Your task to perform on an android device: open app "Indeed Job Search" (install if not already installed) Image 0: 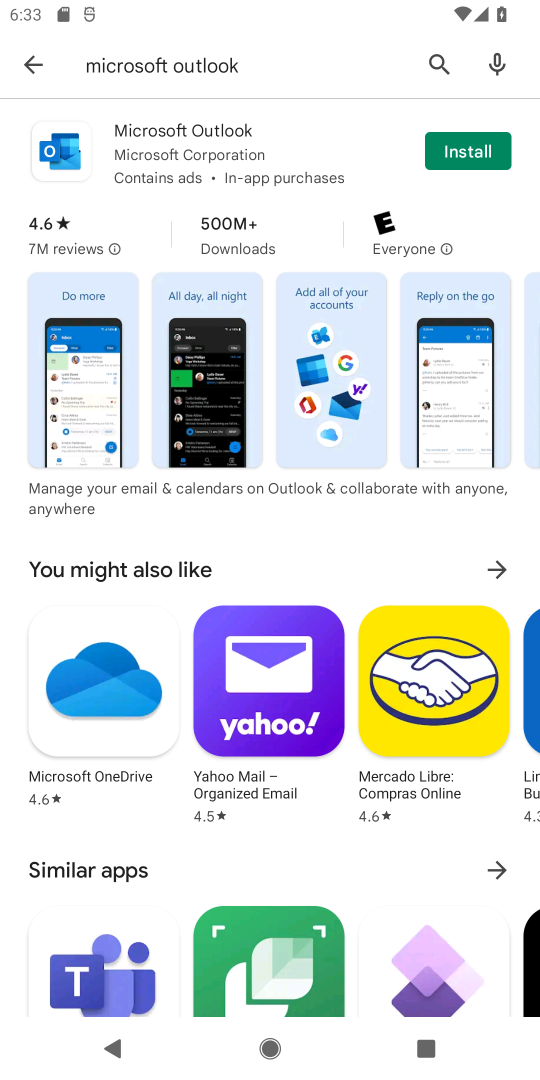
Step 0: click (450, 48)
Your task to perform on an android device: open app "Indeed Job Search" (install if not already installed) Image 1: 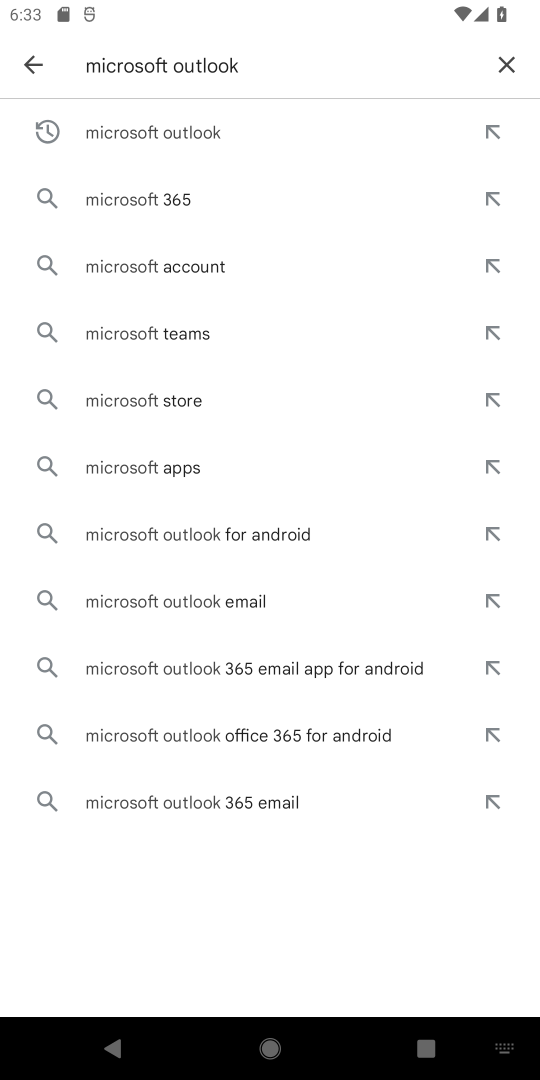
Step 1: click (499, 71)
Your task to perform on an android device: open app "Indeed Job Search" (install if not already installed) Image 2: 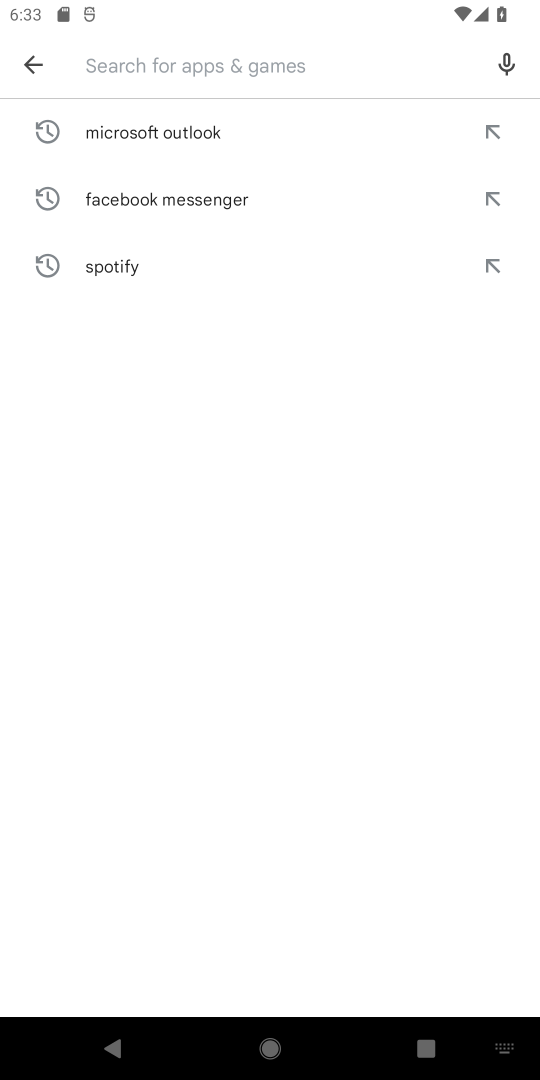
Step 2: type "Indeed Job Search"
Your task to perform on an android device: open app "Indeed Job Search" (install if not already installed) Image 3: 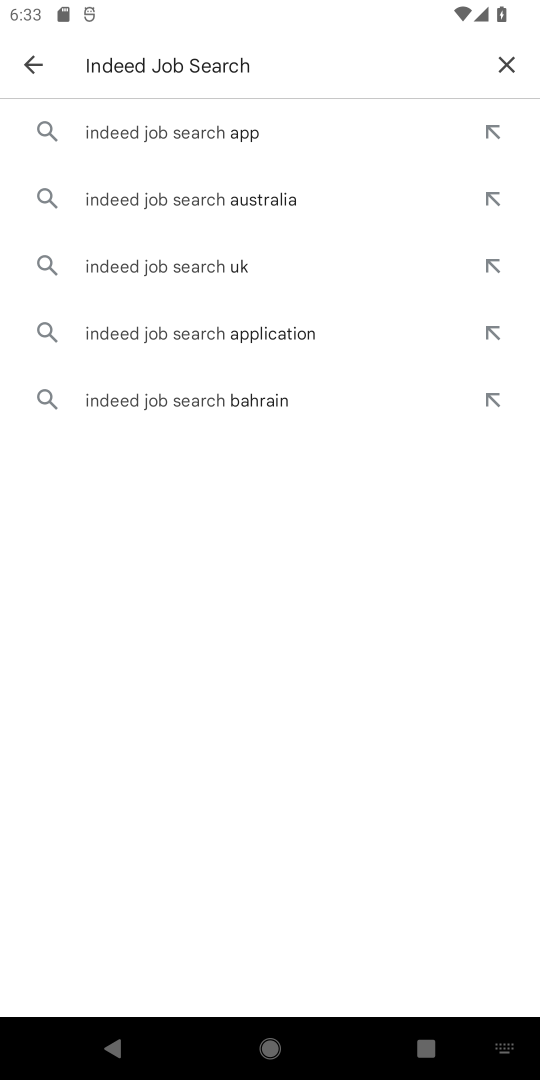
Step 3: click (178, 140)
Your task to perform on an android device: open app "Indeed Job Search" (install if not already installed) Image 4: 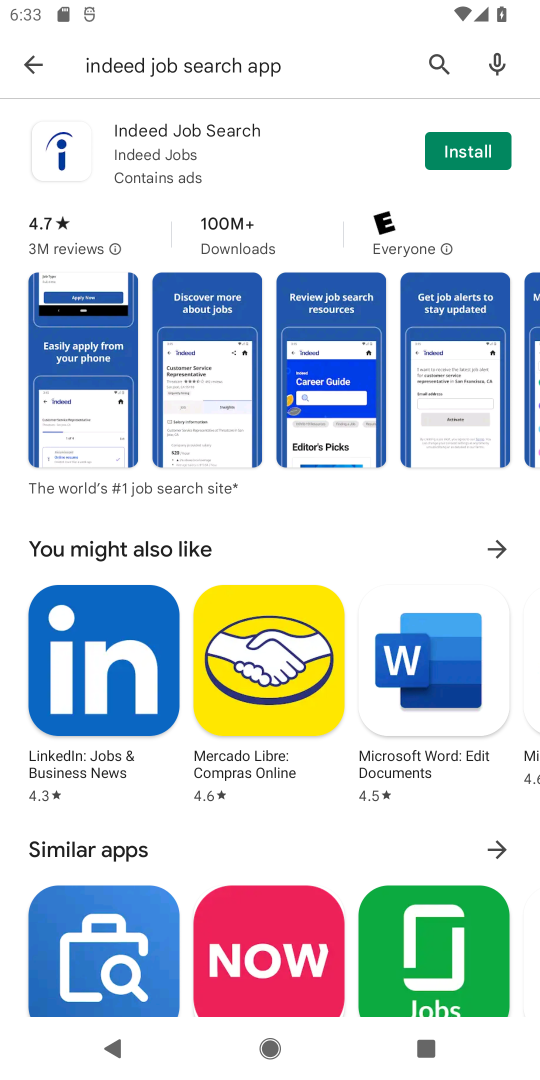
Step 4: click (429, 149)
Your task to perform on an android device: open app "Indeed Job Search" (install if not already installed) Image 5: 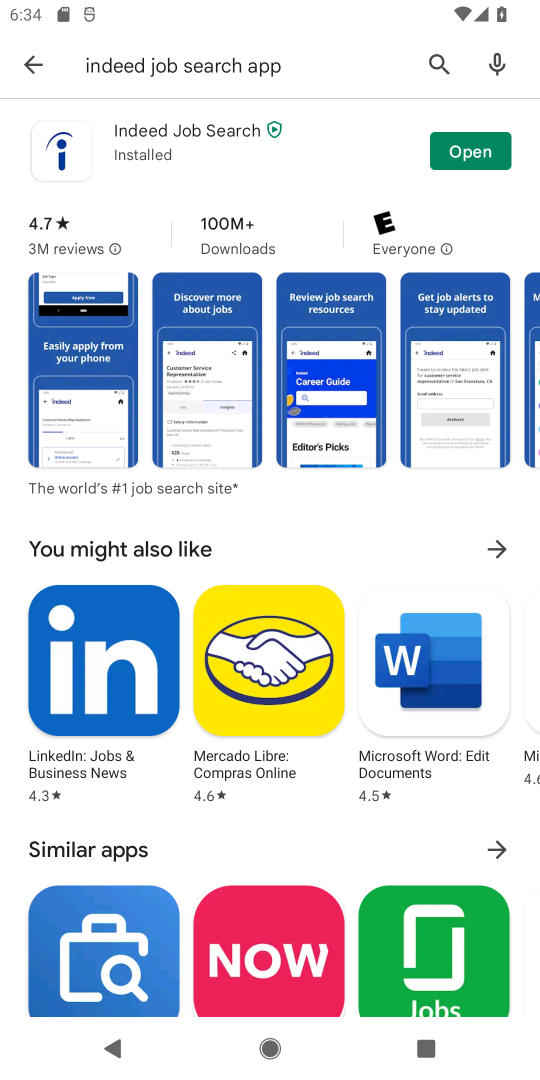
Step 5: click (462, 161)
Your task to perform on an android device: open app "Indeed Job Search" (install if not already installed) Image 6: 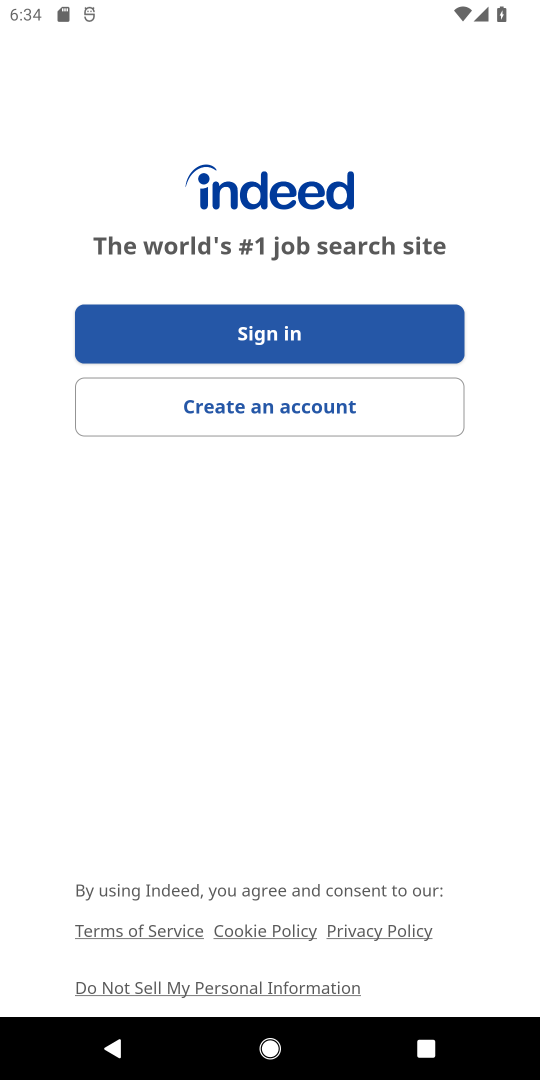
Step 6: task complete